Your task to perform on an android device: Open location settings Image 0: 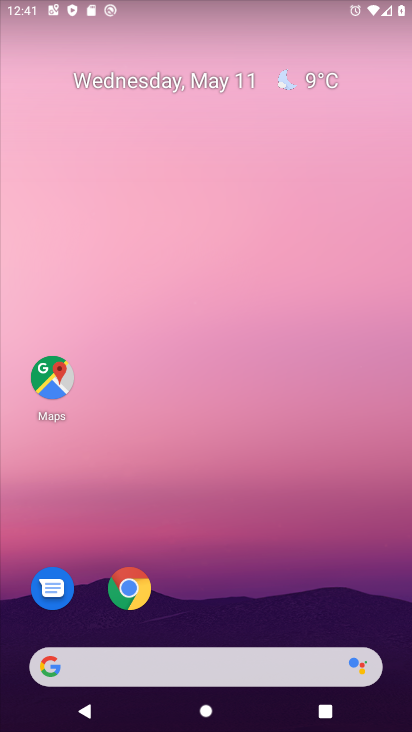
Step 0: drag from (299, 0) to (281, 34)
Your task to perform on an android device: Open location settings Image 1: 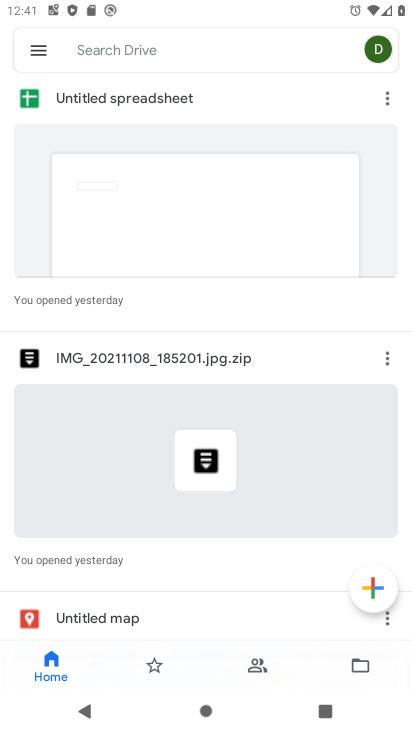
Step 1: press home button
Your task to perform on an android device: Open location settings Image 2: 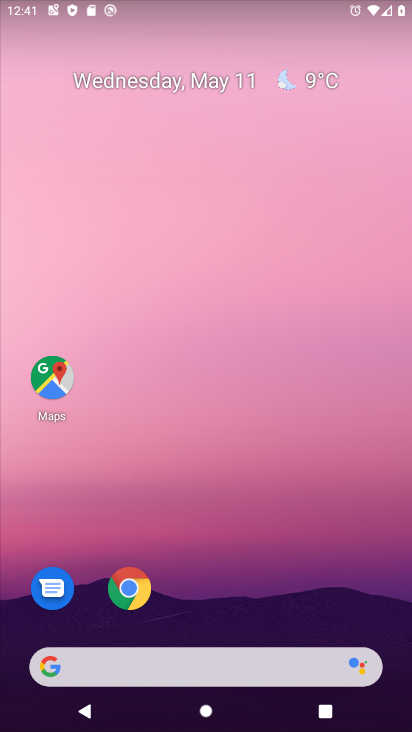
Step 2: drag from (300, 558) to (310, 98)
Your task to perform on an android device: Open location settings Image 3: 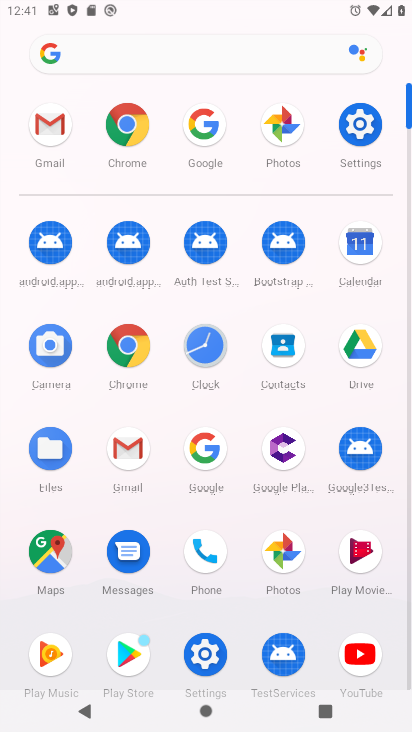
Step 3: click (356, 129)
Your task to perform on an android device: Open location settings Image 4: 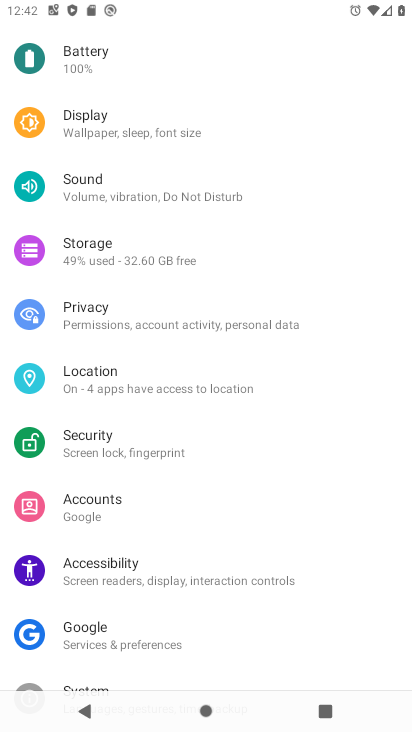
Step 4: click (85, 381)
Your task to perform on an android device: Open location settings Image 5: 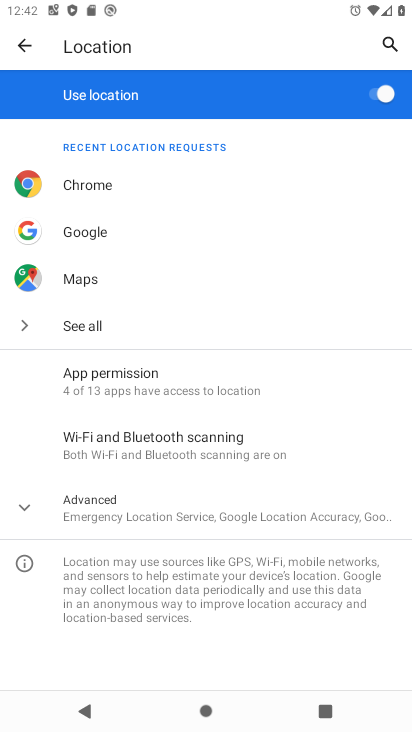
Step 5: task complete